Your task to perform on an android device: find photos in the google photos app Image 0: 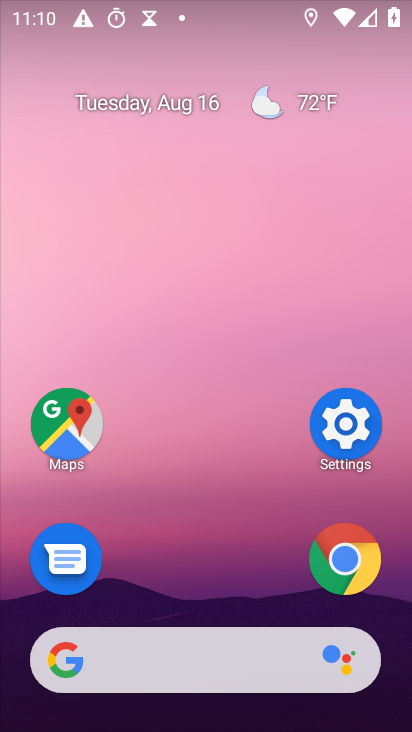
Step 0: drag from (175, 619) to (168, 101)
Your task to perform on an android device: find photos in the google photos app Image 1: 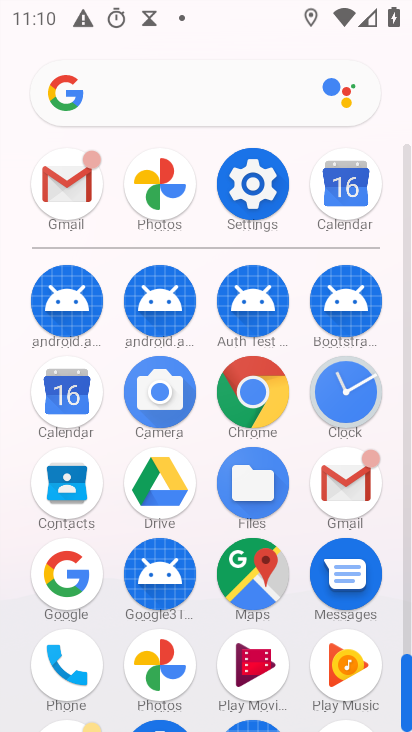
Step 1: click (154, 200)
Your task to perform on an android device: find photos in the google photos app Image 2: 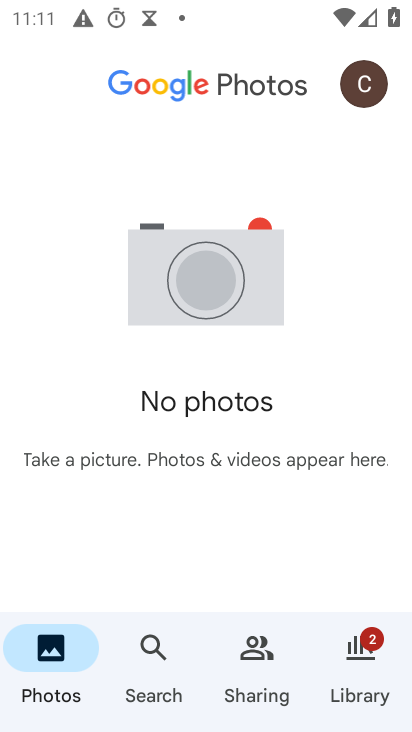
Step 2: task complete